Your task to perform on an android device: What's the weather going to be tomorrow? Image 0: 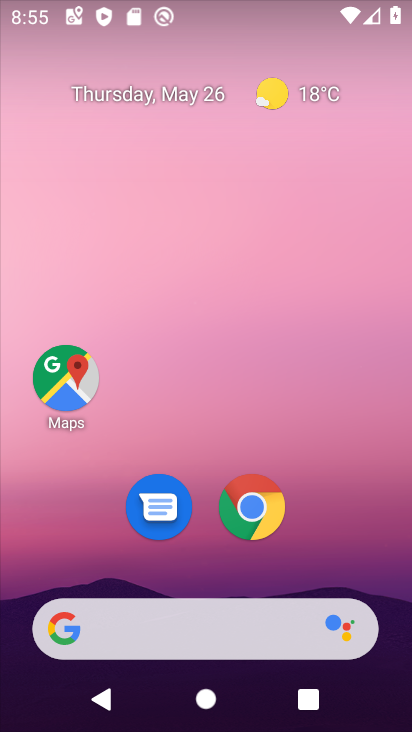
Step 0: press home button
Your task to perform on an android device: What's the weather going to be tomorrow? Image 1: 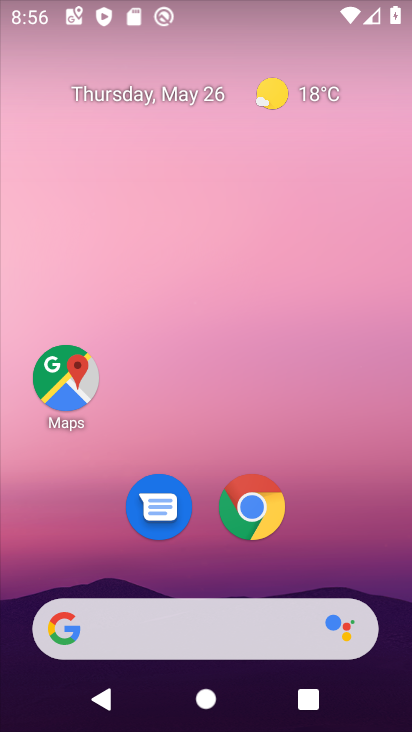
Step 1: drag from (254, 669) to (271, 100)
Your task to perform on an android device: What's the weather going to be tomorrow? Image 2: 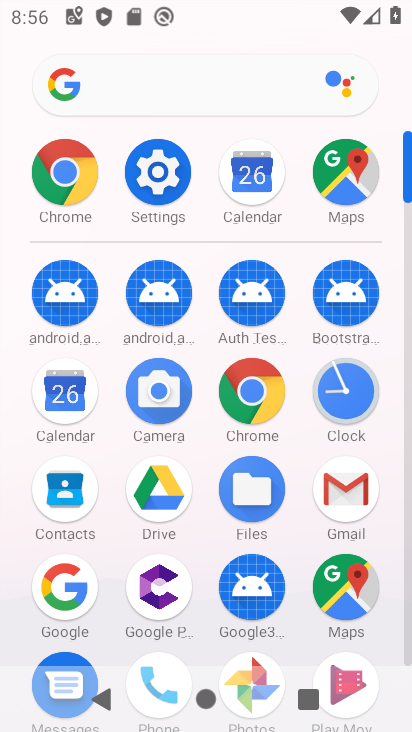
Step 2: click (190, 103)
Your task to perform on an android device: What's the weather going to be tomorrow? Image 3: 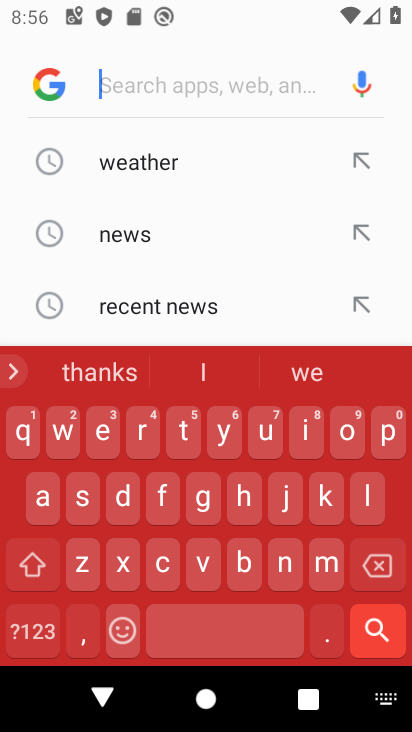
Step 3: click (160, 175)
Your task to perform on an android device: What's the weather going to be tomorrow? Image 4: 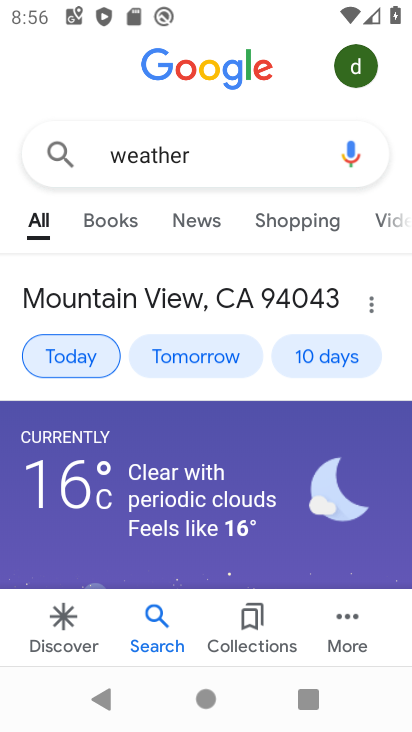
Step 4: click (198, 354)
Your task to perform on an android device: What's the weather going to be tomorrow? Image 5: 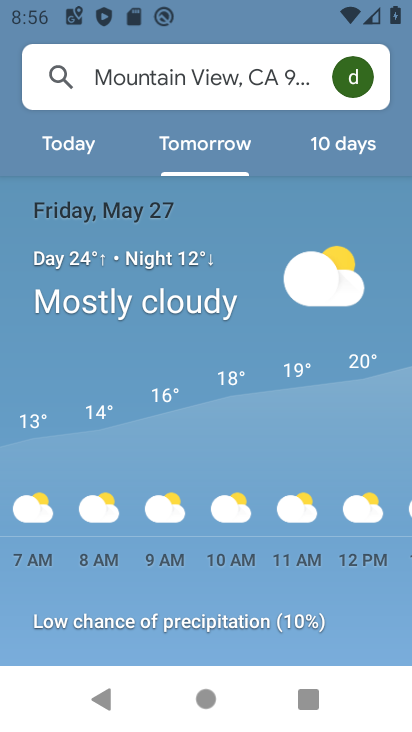
Step 5: task complete